Your task to perform on an android device: add a label to a message in the gmail app Image 0: 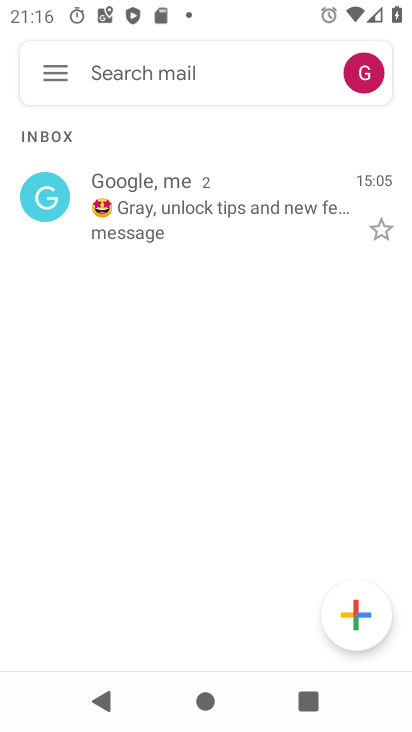
Step 0: press home button
Your task to perform on an android device: add a label to a message in the gmail app Image 1: 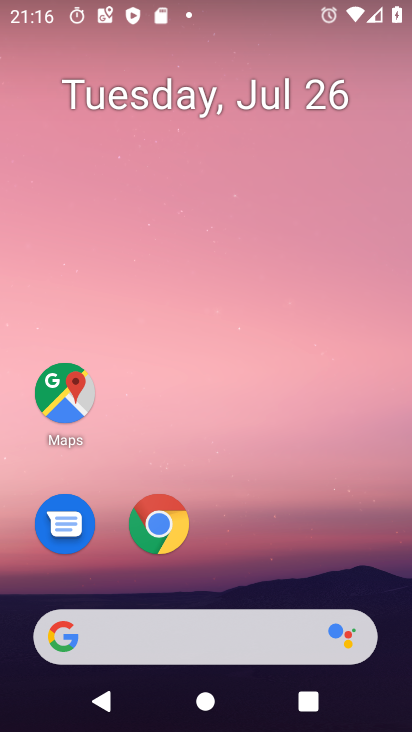
Step 1: drag from (269, 509) to (276, 83)
Your task to perform on an android device: add a label to a message in the gmail app Image 2: 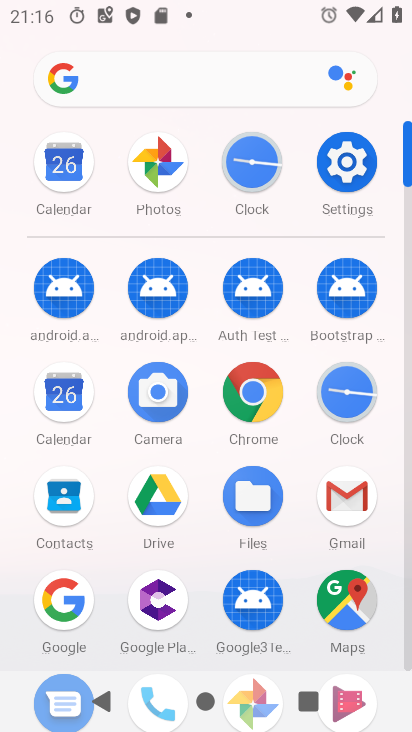
Step 2: click (352, 505)
Your task to perform on an android device: add a label to a message in the gmail app Image 3: 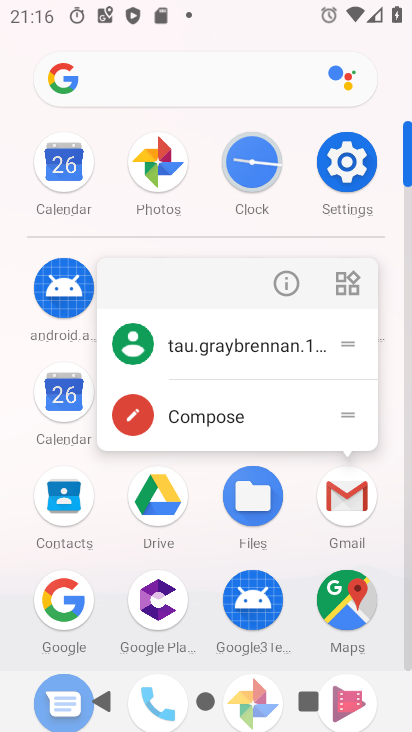
Step 3: click (352, 494)
Your task to perform on an android device: add a label to a message in the gmail app Image 4: 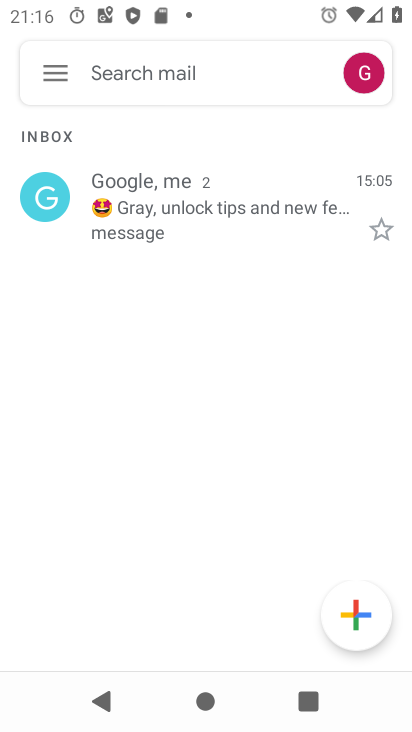
Step 4: click (252, 191)
Your task to perform on an android device: add a label to a message in the gmail app Image 5: 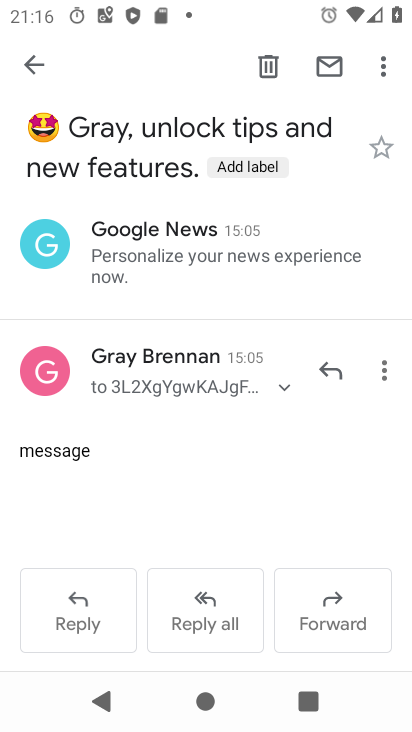
Step 5: click (381, 62)
Your task to perform on an android device: add a label to a message in the gmail app Image 6: 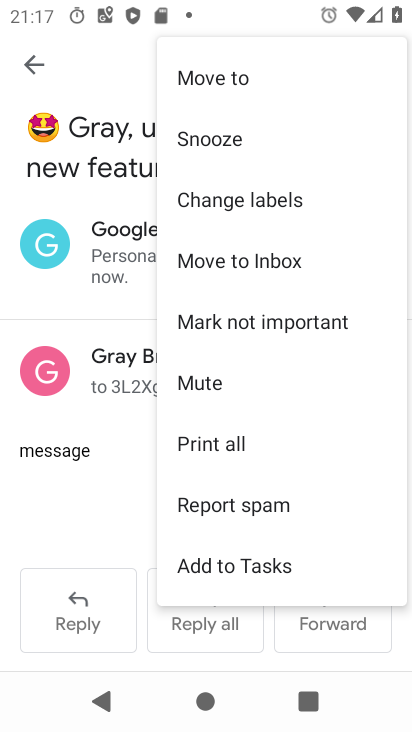
Step 6: click (269, 248)
Your task to perform on an android device: add a label to a message in the gmail app Image 7: 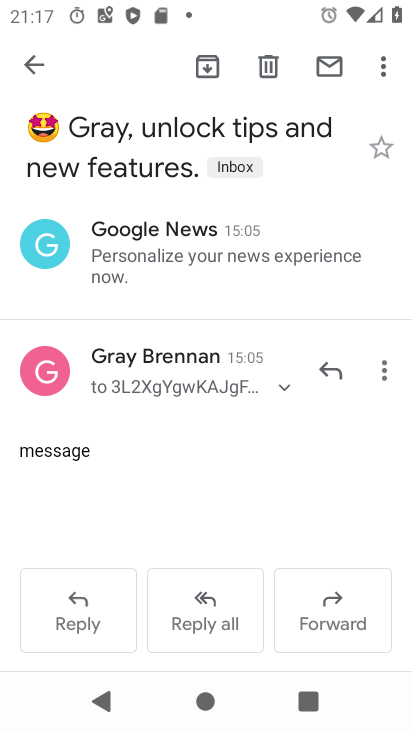
Step 7: task complete